Your task to perform on an android device: turn off javascript in the chrome app Image 0: 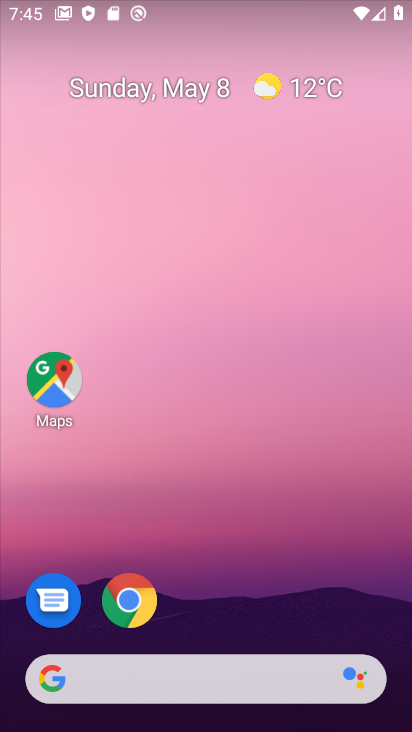
Step 0: click (128, 607)
Your task to perform on an android device: turn off javascript in the chrome app Image 1: 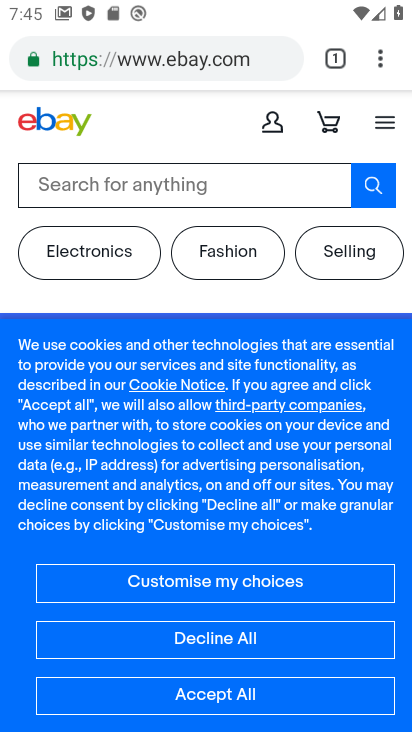
Step 1: click (369, 49)
Your task to perform on an android device: turn off javascript in the chrome app Image 2: 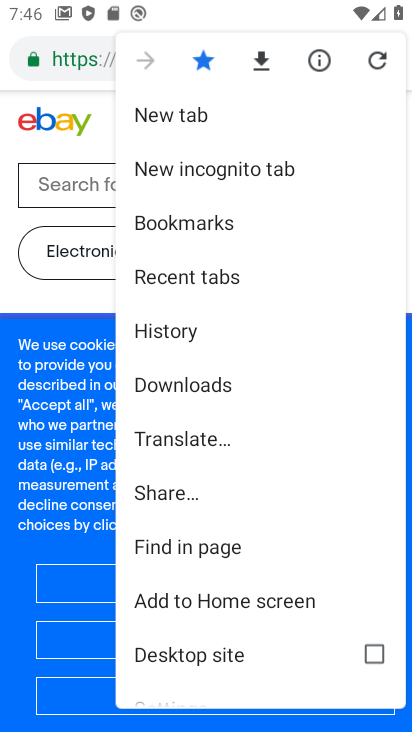
Step 2: drag from (195, 620) to (279, 27)
Your task to perform on an android device: turn off javascript in the chrome app Image 3: 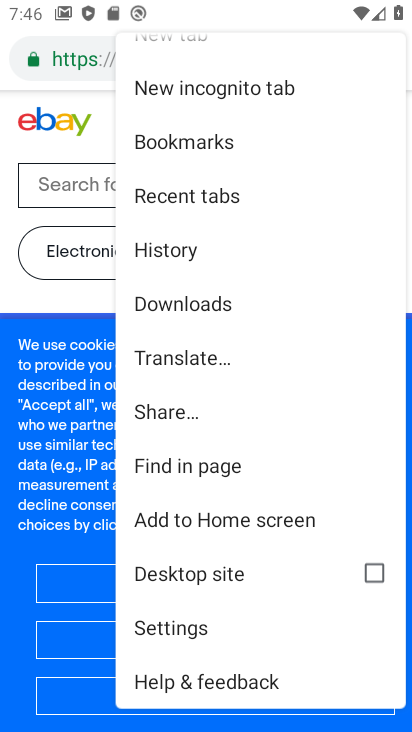
Step 3: click (178, 625)
Your task to perform on an android device: turn off javascript in the chrome app Image 4: 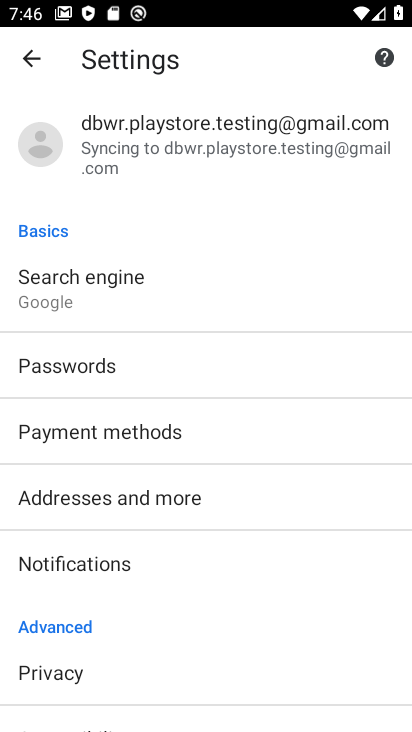
Step 4: drag from (121, 694) to (218, 195)
Your task to perform on an android device: turn off javascript in the chrome app Image 5: 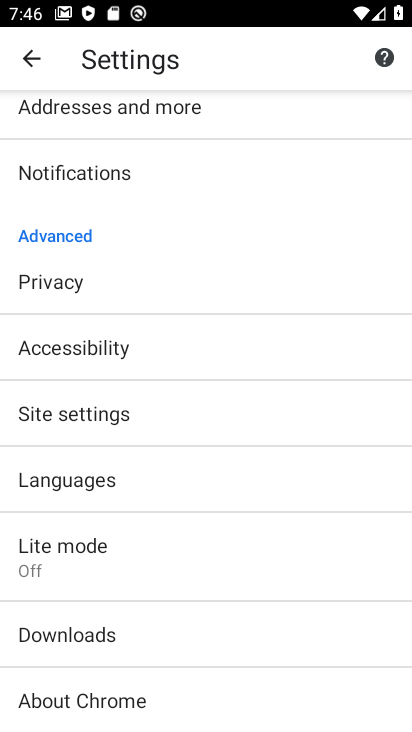
Step 5: click (171, 385)
Your task to perform on an android device: turn off javascript in the chrome app Image 6: 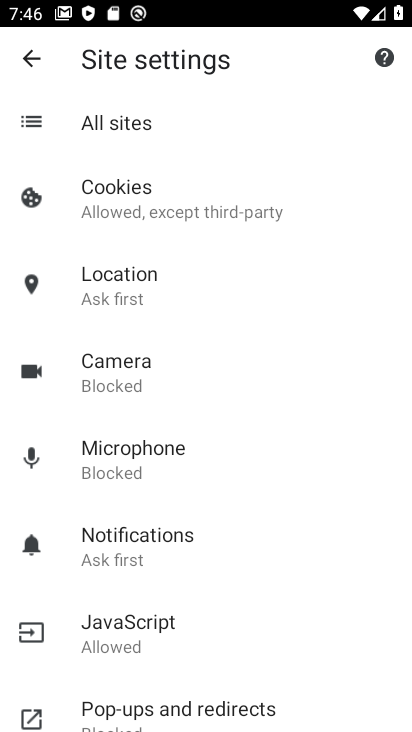
Step 6: click (143, 643)
Your task to perform on an android device: turn off javascript in the chrome app Image 7: 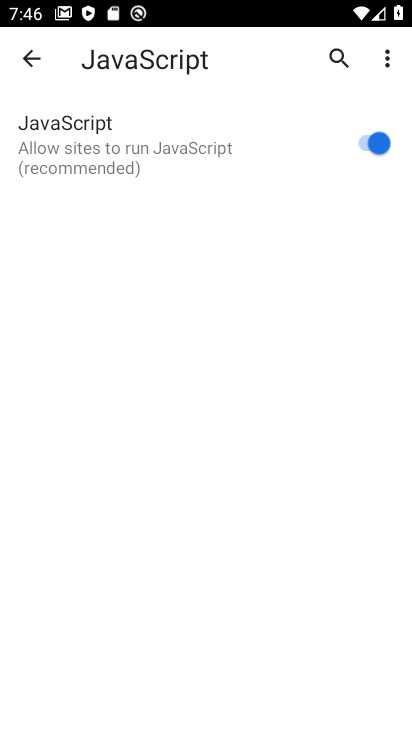
Step 7: click (377, 149)
Your task to perform on an android device: turn off javascript in the chrome app Image 8: 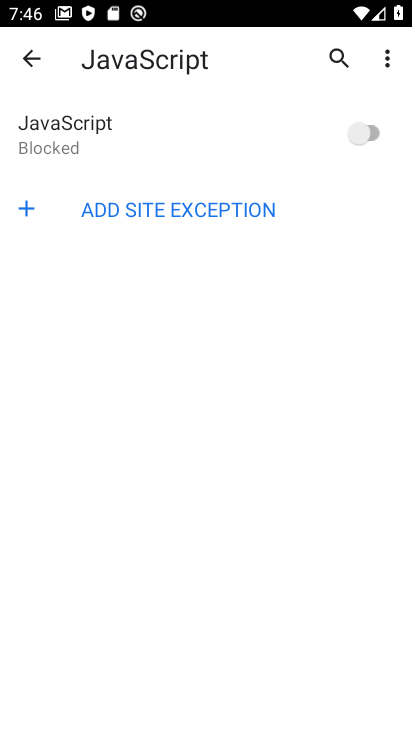
Step 8: task complete